Your task to perform on an android device: What's on my calendar today? Image 0: 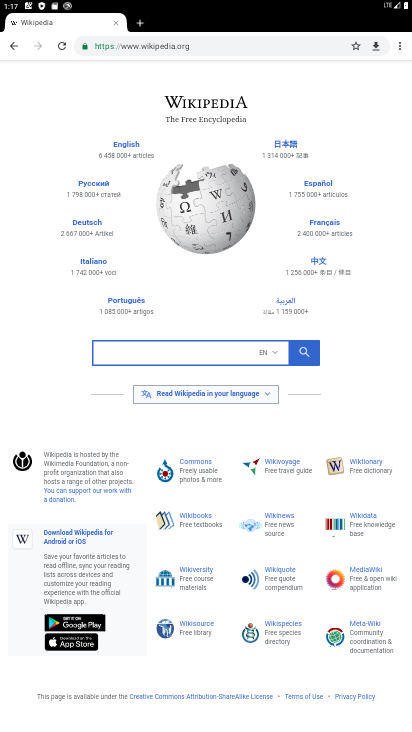
Step 0: press home button
Your task to perform on an android device: What's on my calendar today? Image 1: 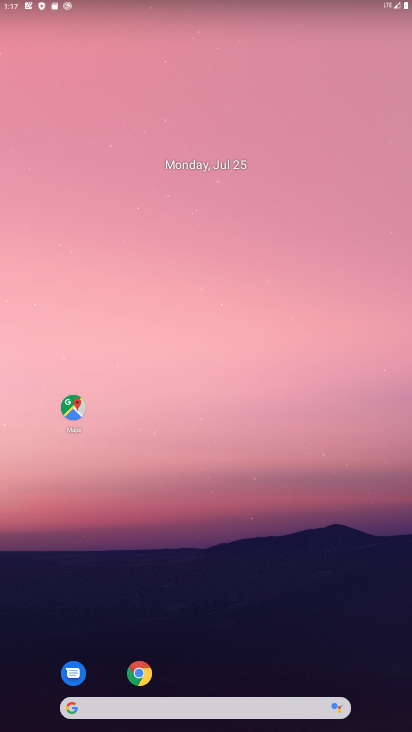
Step 1: drag from (388, 683) to (319, 95)
Your task to perform on an android device: What's on my calendar today? Image 2: 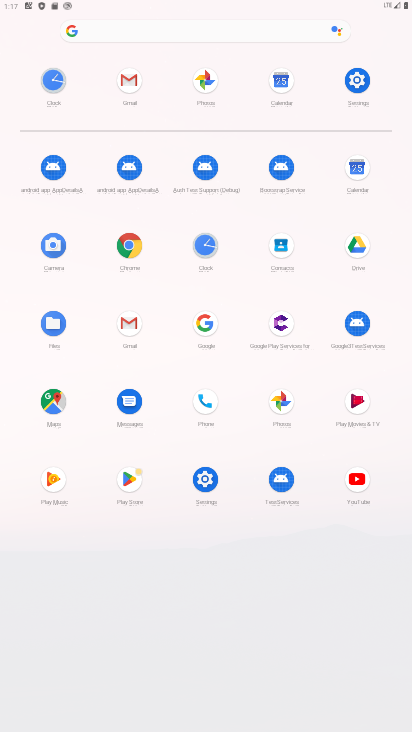
Step 2: click (359, 169)
Your task to perform on an android device: What's on my calendar today? Image 3: 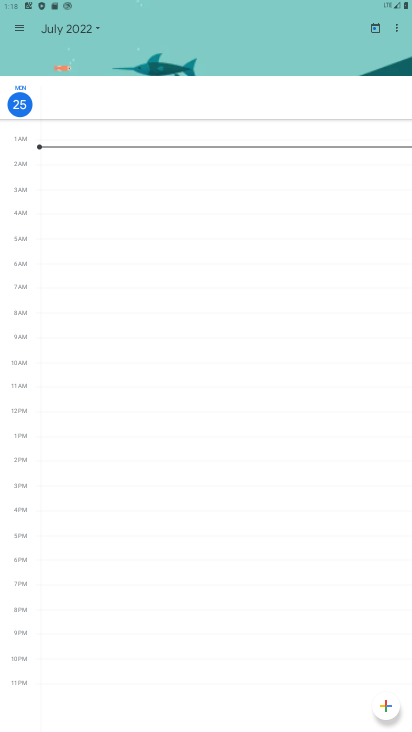
Step 3: task complete